Your task to perform on an android device: turn smart compose on in the gmail app Image 0: 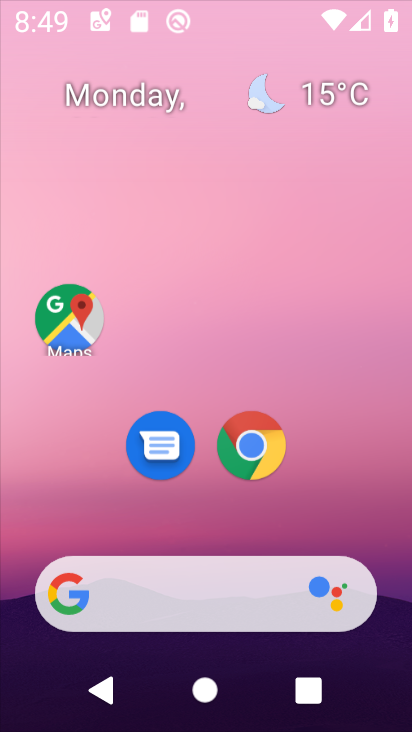
Step 0: press home button
Your task to perform on an android device: turn smart compose on in the gmail app Image 1: 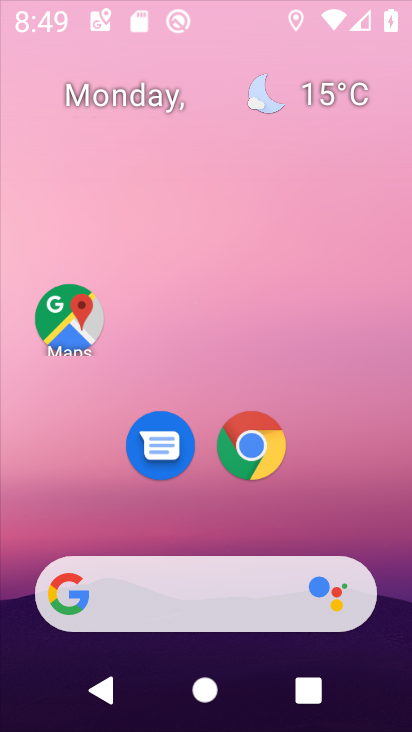
Step 1: click (72, 319)
Your task to perform on an android device: turn smart compose on in the gmail app Image 2: 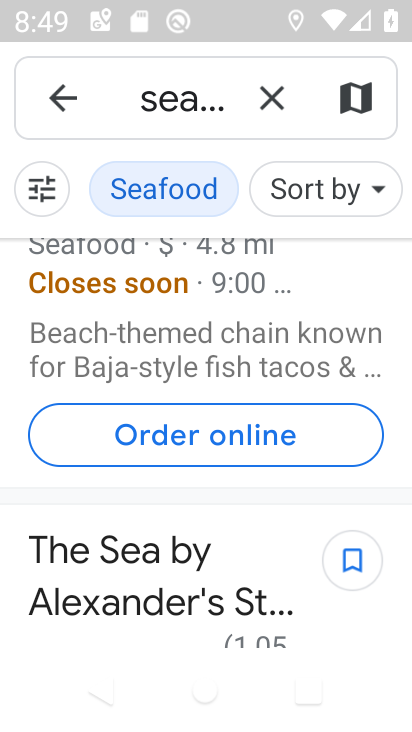
Step 2: click (72, 319)
Your task to perform on an android device: turn smart compose on in the gmail app Image 3: 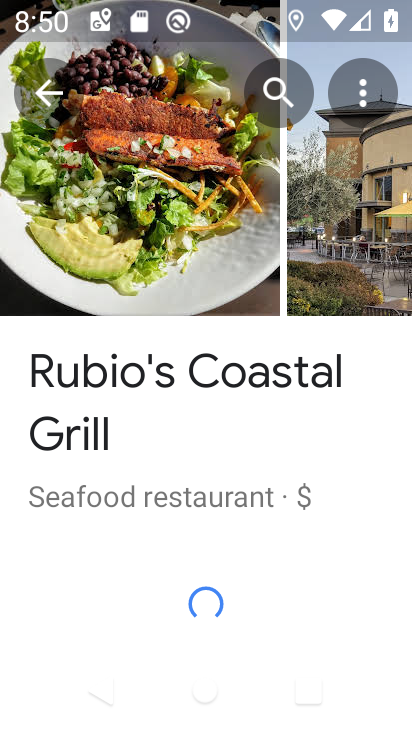
Step 3: press back button
Your task to perform on an android device: turn smart compose on in the gmail app Image 4: 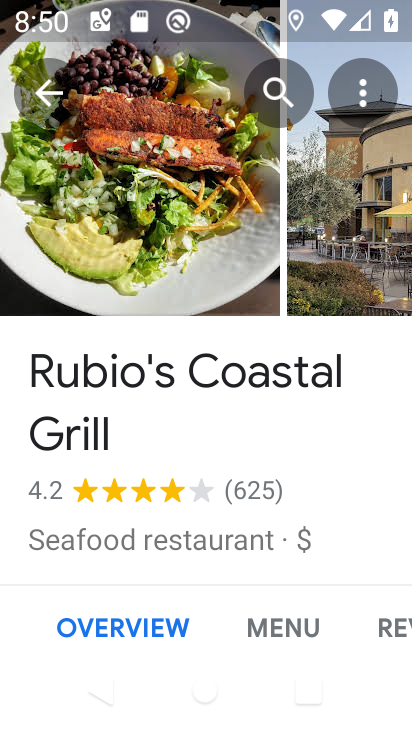
Step 4: press home button
Your task to perform on an android device: turn smart compose on in the gmail app Image 5: 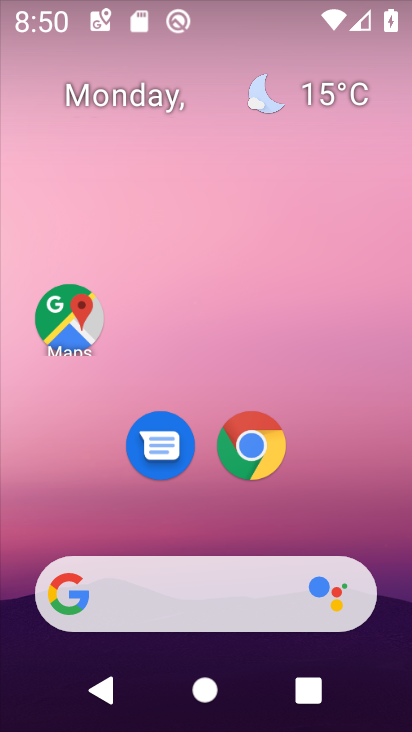
Step 5: drag from (201, 520) to (252, 3)
Your task to perform on an android device: turn smart compose on in the gmail app Image 6: 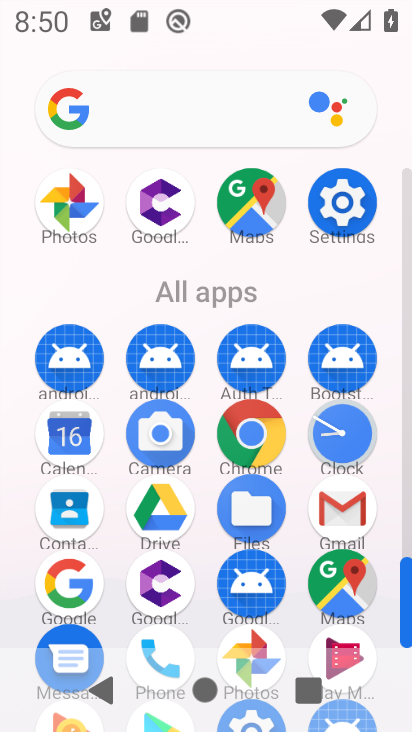
Step 6: click (344, 503)
Your task to perform on an android device: turn smart compose on in the gmail app Image 7: 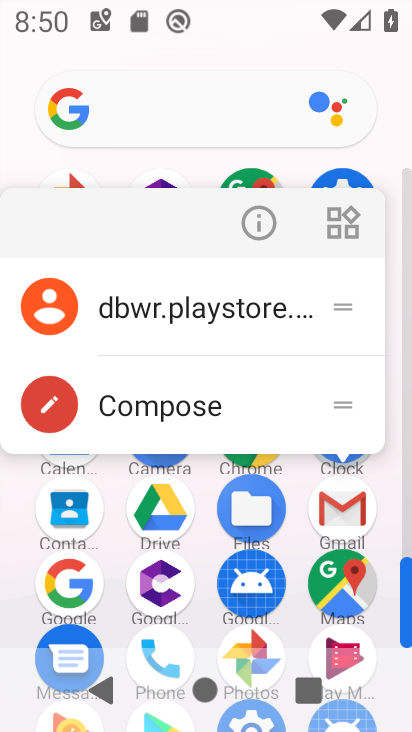
Step 7: click (340, 499)
Your task to perform on an android device: turn smart compose on in the gmail app Image 8: 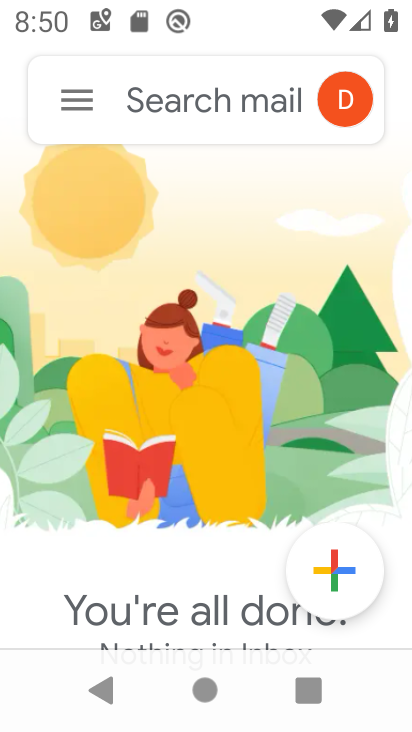
Step 8: click (70, 101)
Your task to perform on an android device: turn smart compose on in the gmail app Image 9: 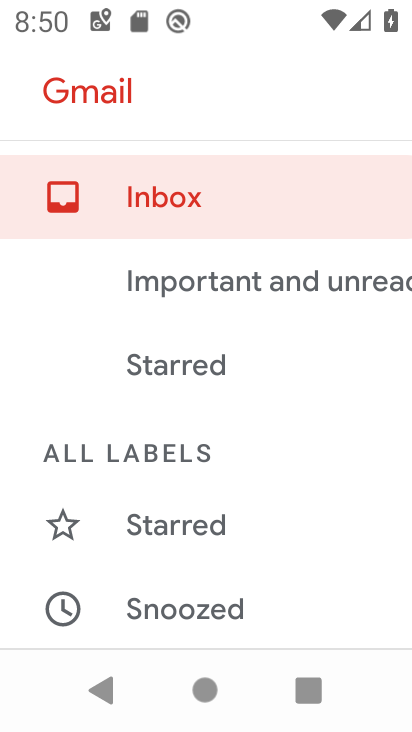
Step 9: drag from (232, 589) to (237, 90)
Your task to perform on an android device: turn smart compose on in the gmail app Image 10: 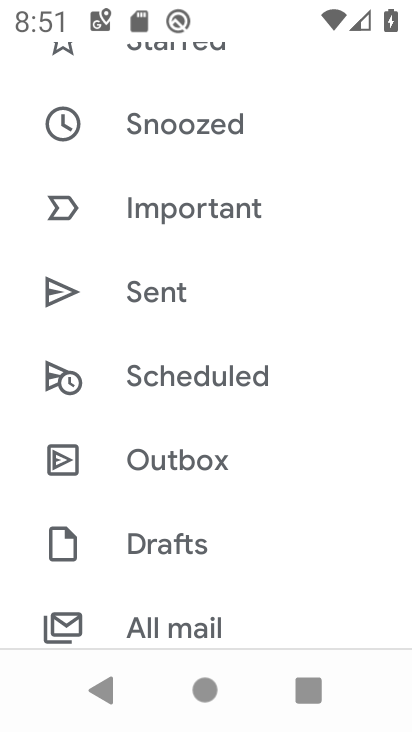
Step 10: drag from (187, 571) to (242, 0)
Your task to perform on an android device: turn smart compose on in the gmail app Image 11: 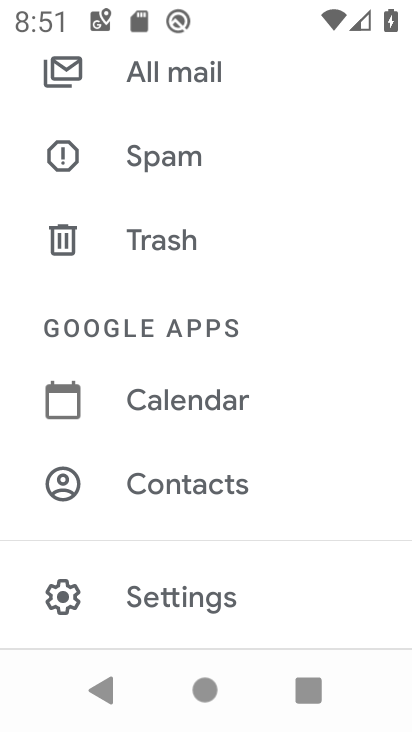
Step 11: click (236, 598)
Your task to perform on an android device: turn smart compose on in the gmail app Image 12: 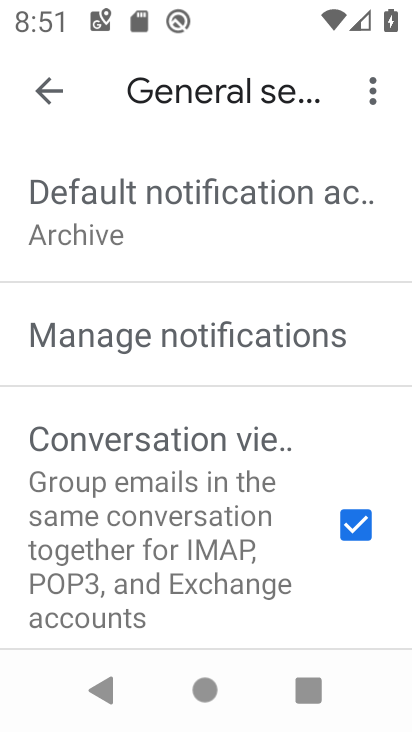
Step 12: click (37, 85)
Your task to perform on an android device: turn smart compose on in the gmail app Image 13: 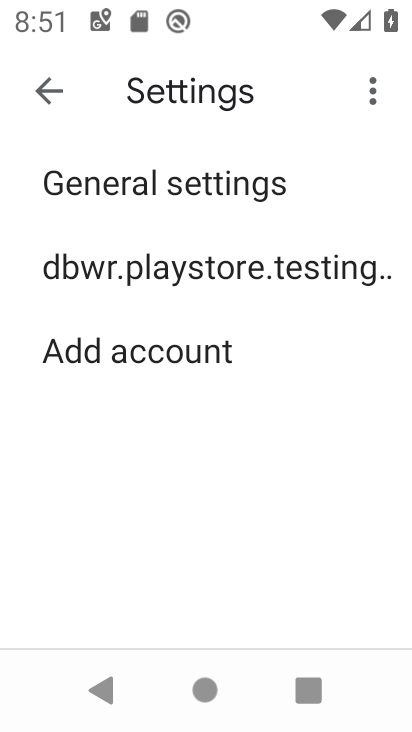
Step 13: click (181, 274)
Your task to perform on an android device: turn smart compose on in the gmail app Image 14: 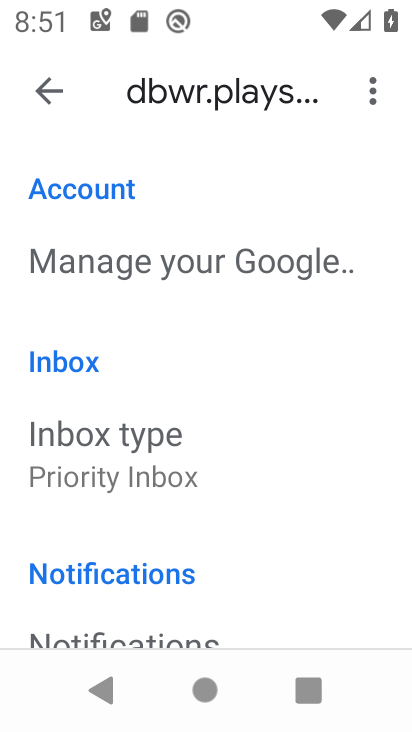
Step 14: task complete